Your task to perform on an android device: Is it going to rain this weekend? Image 0: 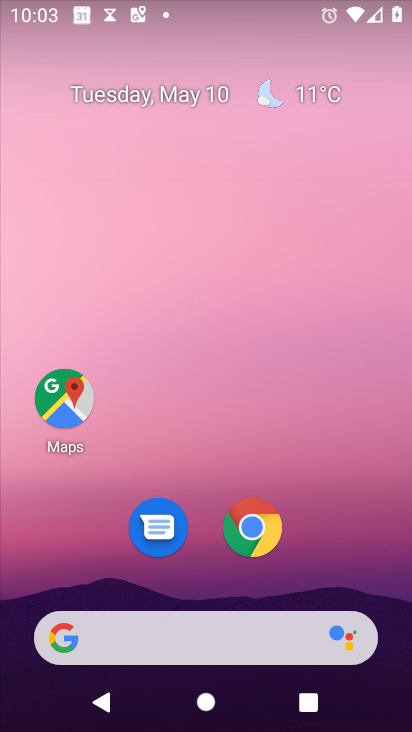
Step 0: click (307, 93)
Your task to perform on an android device: Is it going to rain this weekend? Image 1: 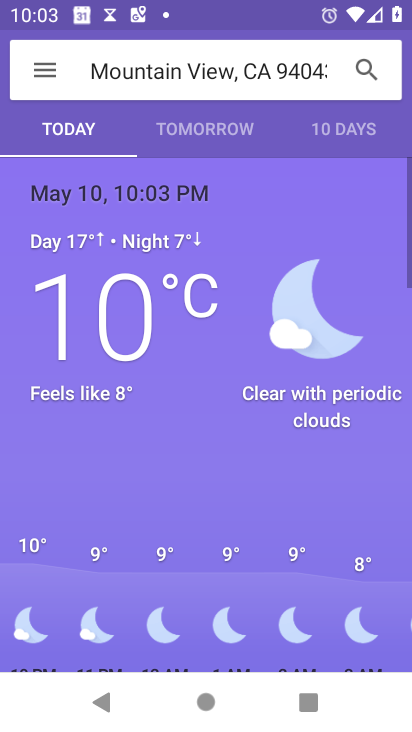
Step 1: click (343, 130)
Your task to perform on an android device: Is it going to rain this weekend? Image 2: 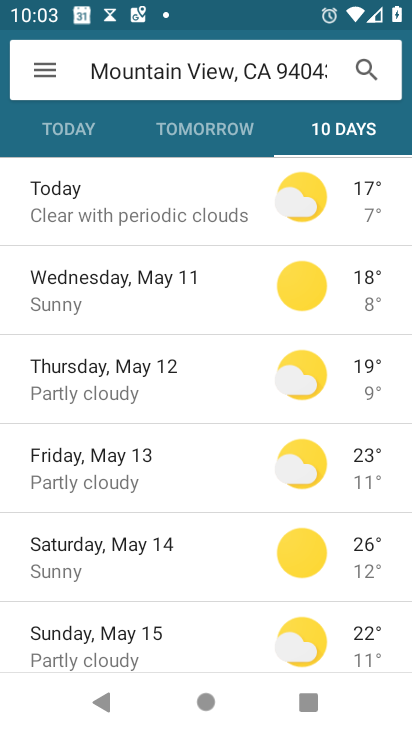
Step 2: task complete